Your task to perform on an android device: Go to Wikipedia Image 0: 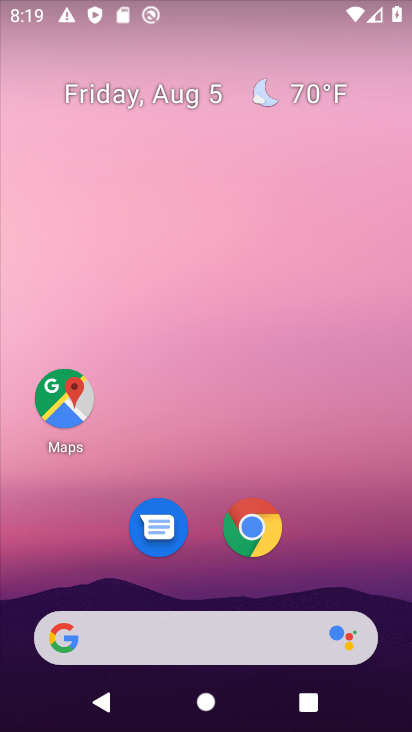
Step 0: click (230, 535)
Your task to perform on an android device: Go to Wikipedia Image 1: 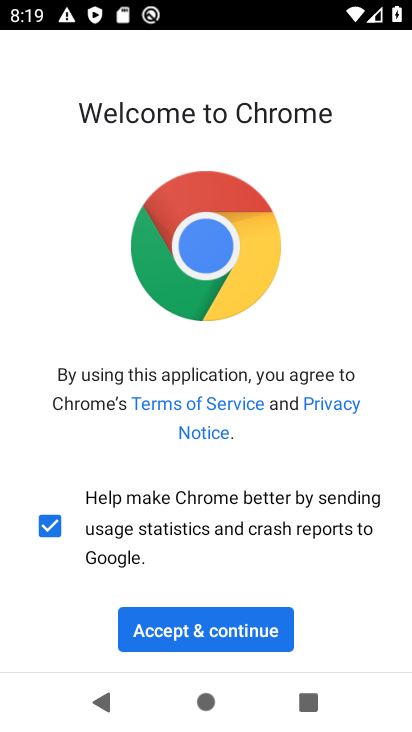
Step 1: click (232, 640)
Your task to perform on an android device: Go to Wikipedia Image 2: 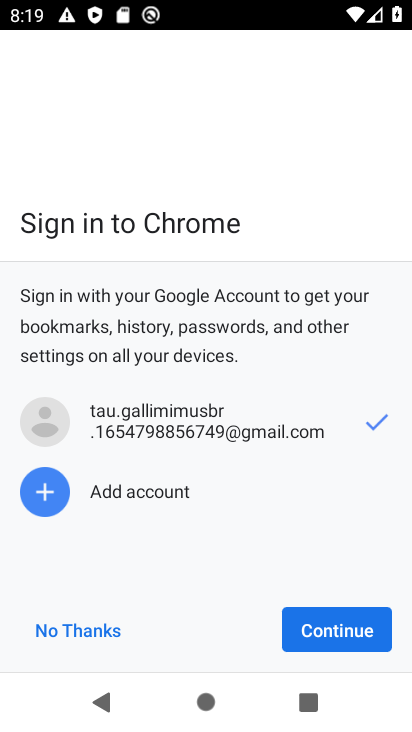
Step 2: click (307, 637)
Your task to perform on an android device: Go to Wikipedia Image 3: 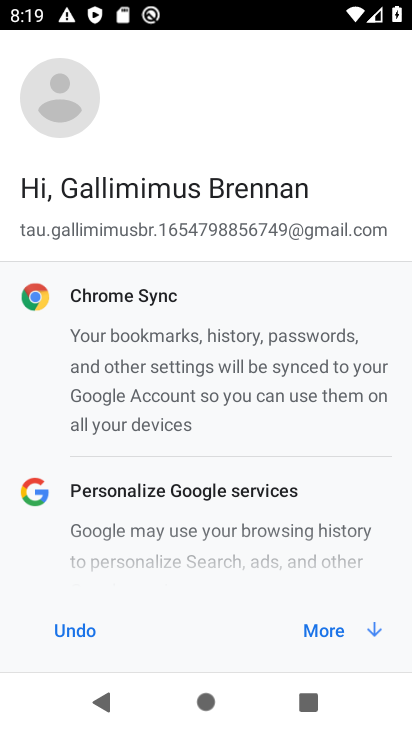
Step 3: click (307, 637)
Your task to perform on an android device: Go to Wikipedia Image 4: 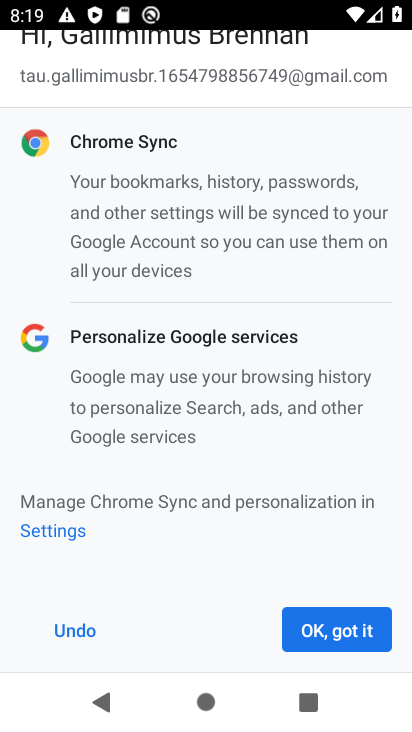
Step 4: click (334, 631)
Your task to perform on an android device: Go to Wikipedia Image 5: 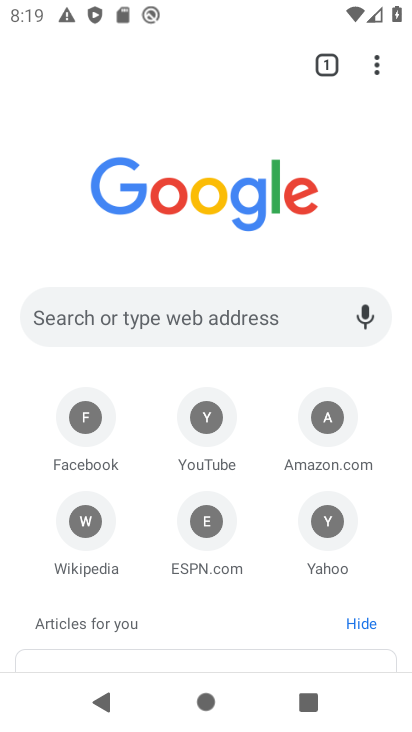
Step 5: click (234, 307)
Your task to perform on an android device: Go to Wikipedia Image 6: 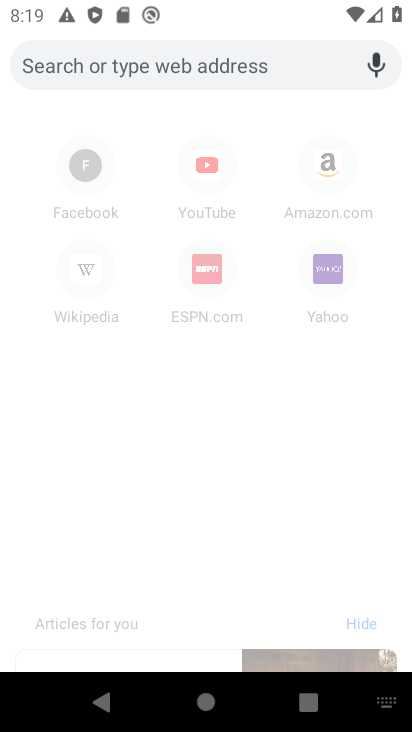
Step 6: type "wikipedia"
Your task to perform on an android device: Go to Wikipedia Image 7: 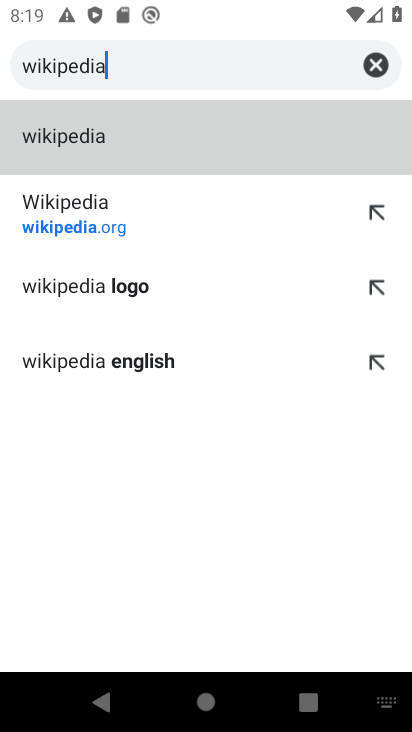
Step 7: click (128, 204)
Your task to perform on an android device: Go to Wikipedia Image 8: 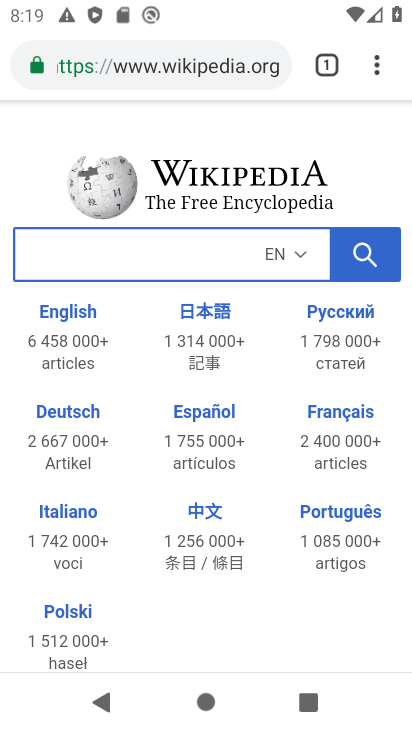
Step 8: task complete